Your task to perform on an android device: toggle improve location accuracy Image 0: 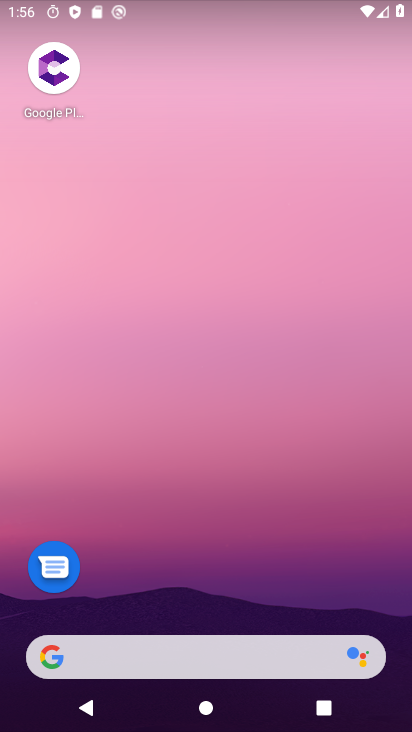
Step 0: drag from (210, 628) to (221, 122)
Your task to perform on an android device: toggle improve location accuracy Image 1: 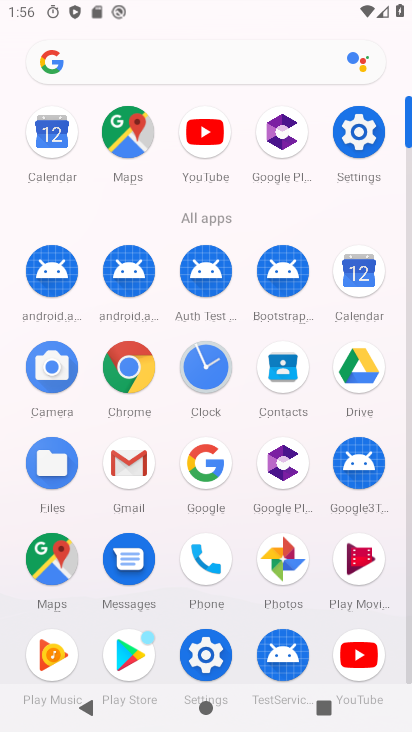
Step 1: click (354, 132)
Your task to perform on an android device: toggle improve location accuracy Image 2: 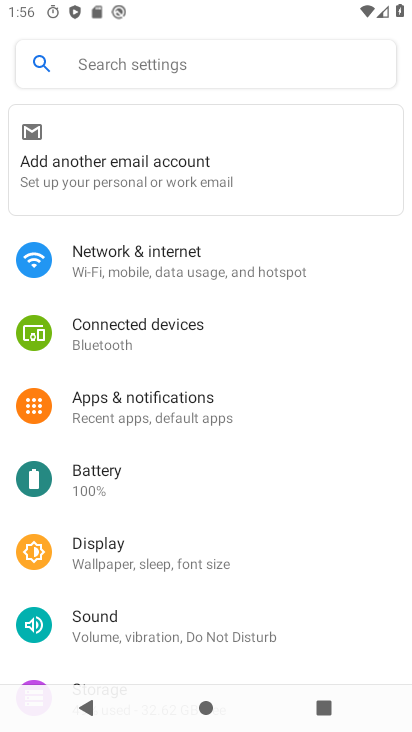
Step 2: drag from (111, 655) to (130, 239)
Your task to perform on an android device: toggle improve location accuracy Image 3: 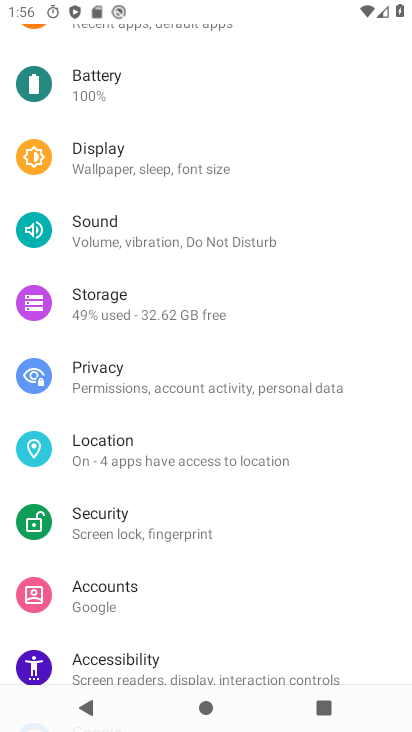
Step 3: click (133, 467)
Your task to perform on an android device: toggle improve location accuracy Image 4: 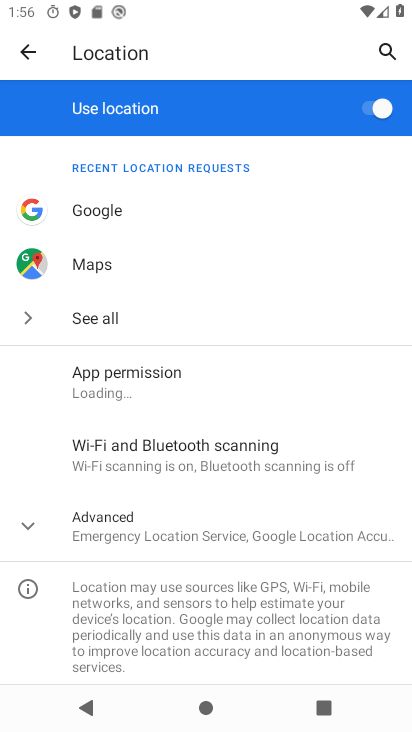
Step 4: click (148, 526)
Your task to perform on an android device: toggle improve location accuracy Image 5: 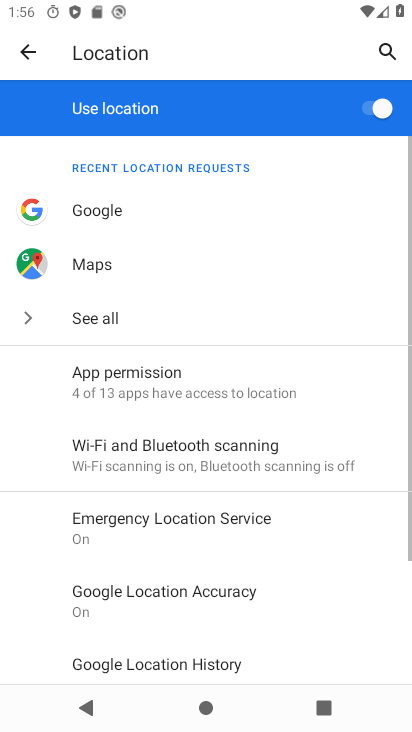
Step 5: click (193, 587)
Your task to perform on an android device: toggle improve location accuracy Image 6: 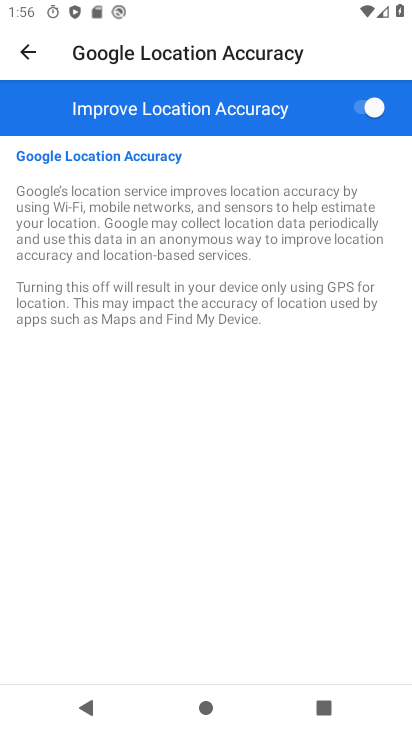
Step 6: click (364, 108)
Your task to perform on an android device: toggle improve location accuracy Image 7: 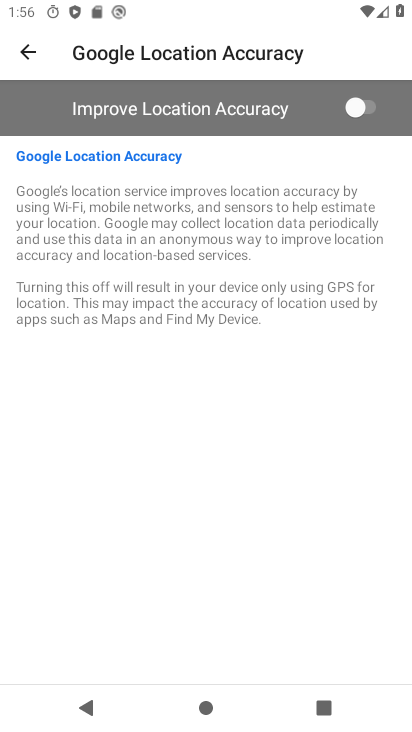
Step 7: task complete